Your task to perform on an android device: Do I have any events today? Image 0: 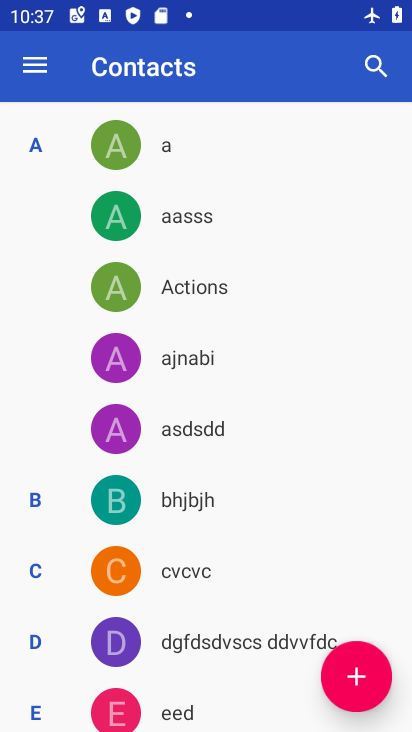
Step 0: press home button
Your task to perform on an android device: Do I have any events today? Image 1: 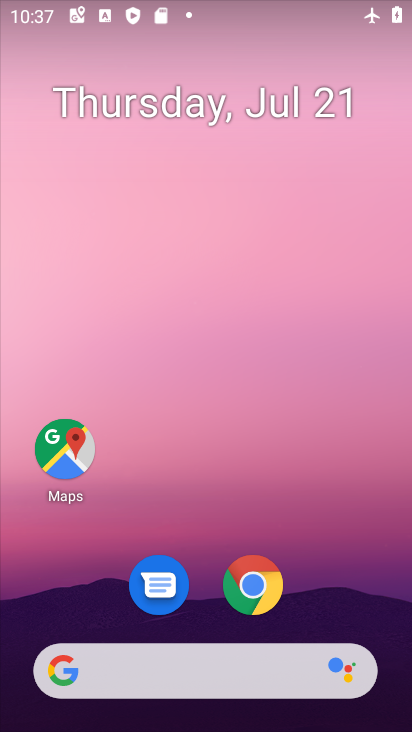
Step 1: drag from (306, 578) to (368, 51)
Your task to perform on an android device: Do I have any events today? Image 2: 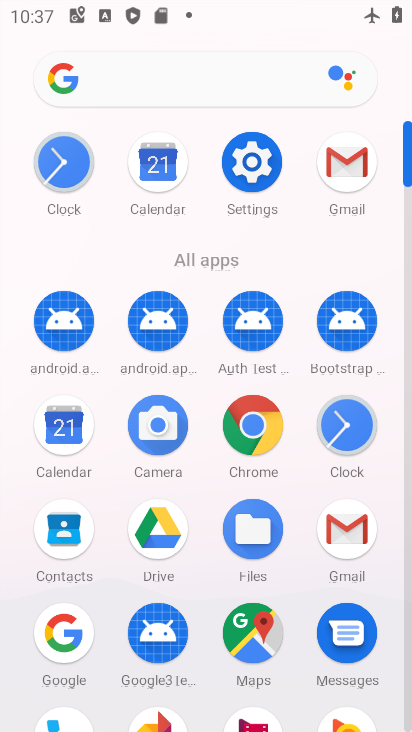
Step 2: click (70, 422)
Your task to perform on an android device: Do I have any events today? Image 3: 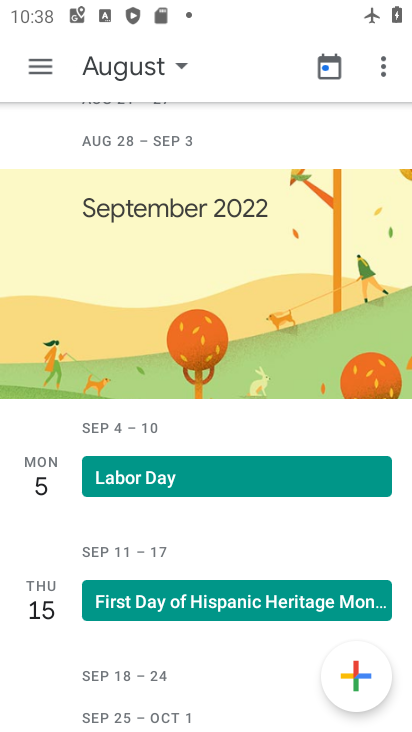
Step 3: drag from (176, 154) to (186, 571)
Your task to perform on an android device: Do I have any events today? Image 4: 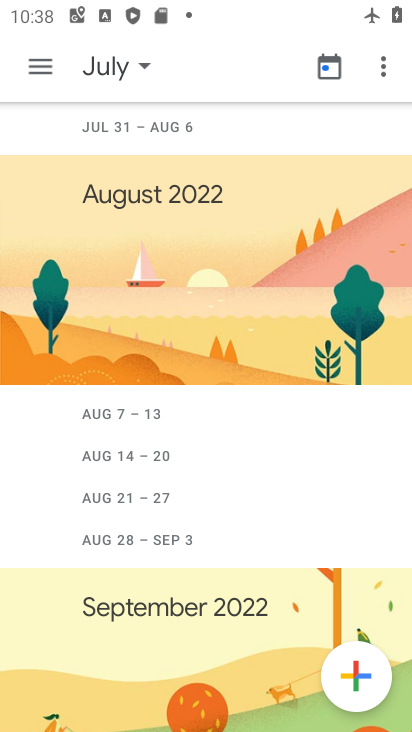
Step 4: drag from (244, 253) to (270, 611)
Your task to perform on an android device: Do I have any events today? Image 5: 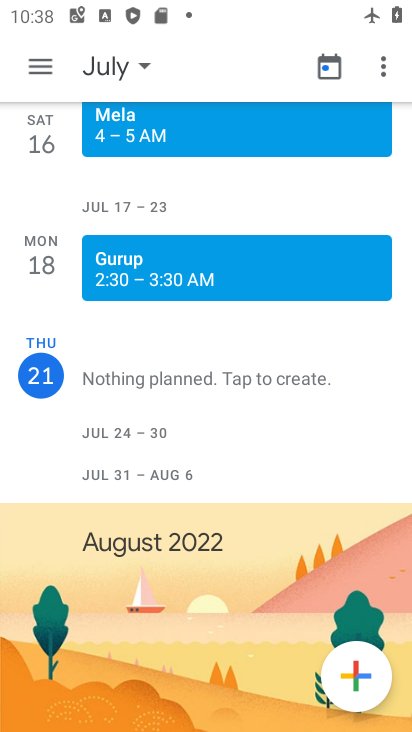
Step 5: click (52, 378)
Your task to perform on an android device: Do I have any events today? Image 6: 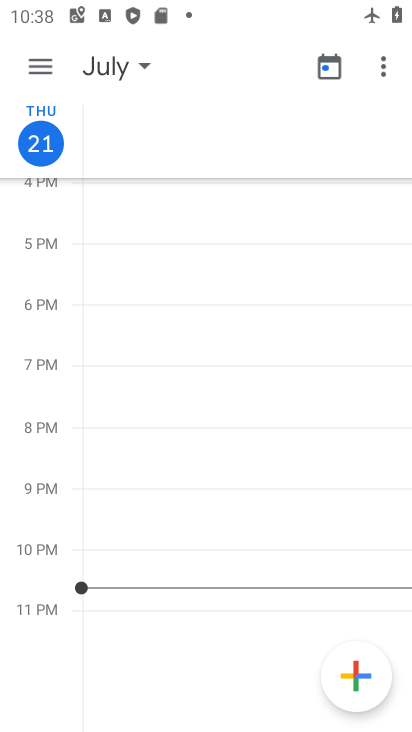
Step 6: task complete